Your task to perform on an android device: turn on airplane mode Image 0: 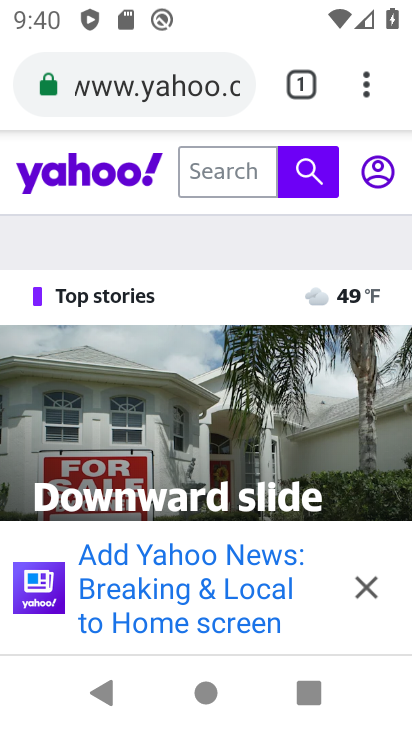
Step 0: press home button
Your task to perform on an android device: turn on airplane mode Image 1: 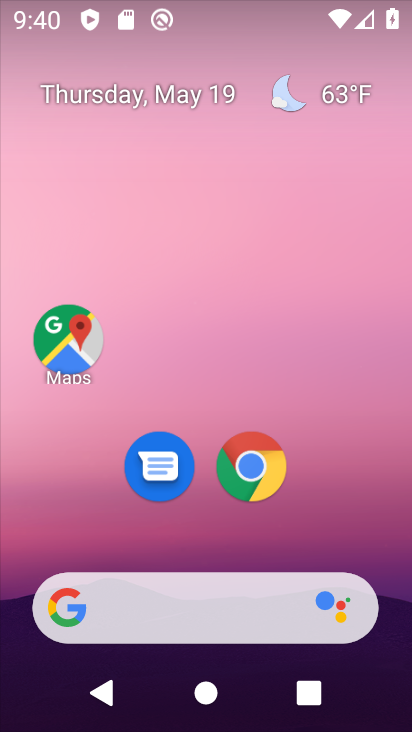
Step 1: drag from (278, 9) to (262, 468)
Your task to perform on an android device: turn on airplane mode Image 2: 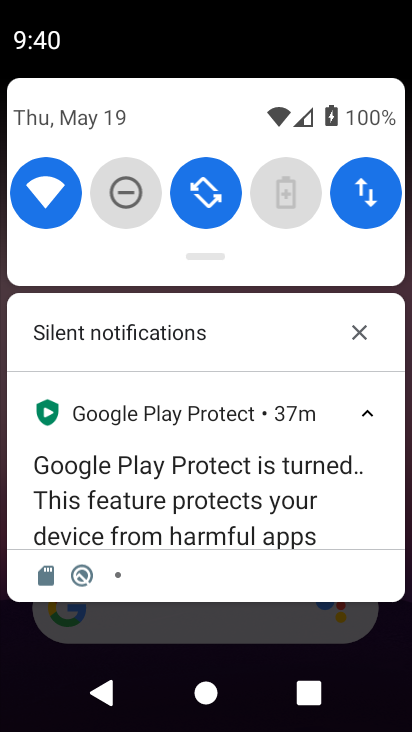
Step 2: drag from (275, 218) to (219, 592)
Your task to perform on an android device: turn on airplane mode Image 3: 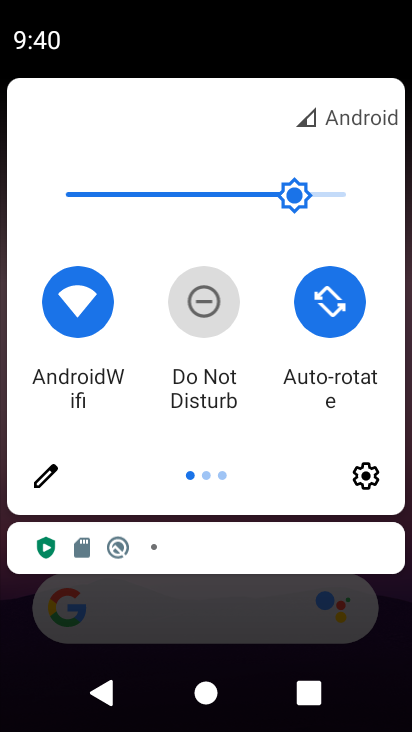
Step 3: drag from (372, 430) to (0, 382)
Your task to perform on an android device: turn on airplane mode Image 4: 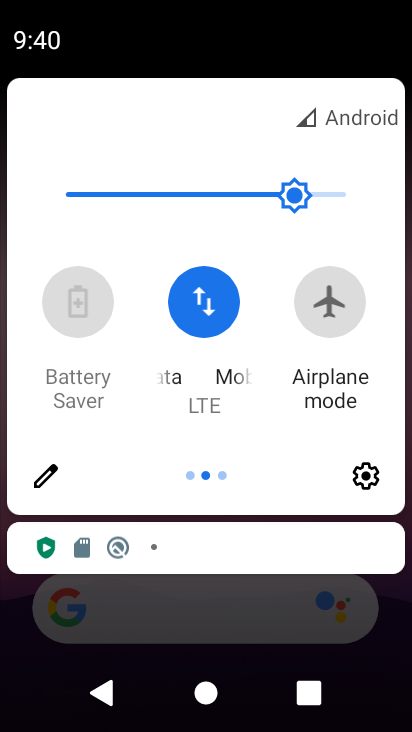
Step 4: click (322, 300)
Your task to perform on an android device: turn on airplane mode Image 5: 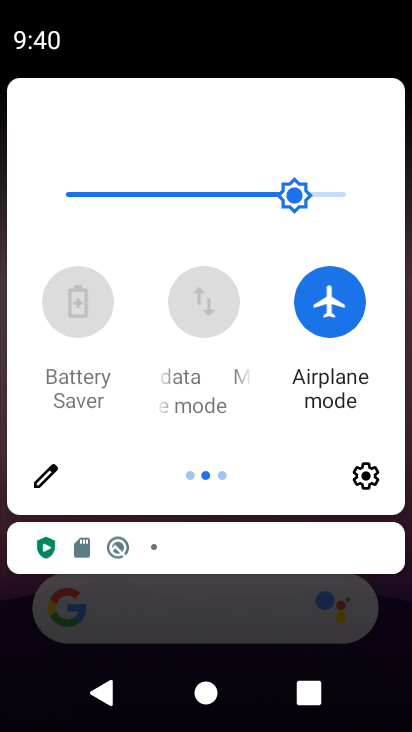
Step 5: task complete